Your task to perform on an android device: delete browsing data in the chrome app Image 0: 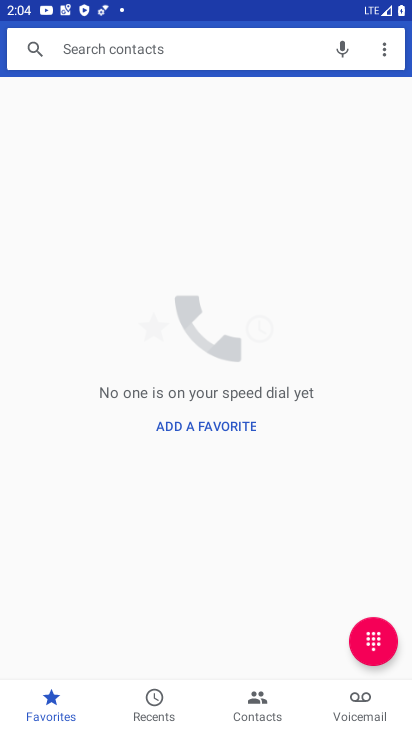
Step 0: press home button
Your task to perform on an android device: delete browsing data in the chrome app Image 1: 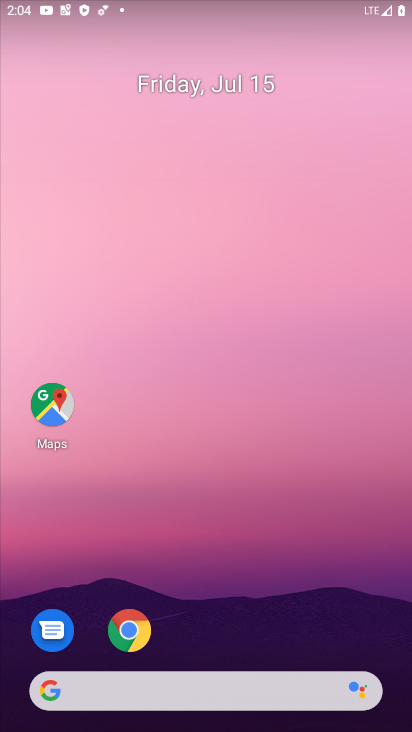
Step 1: drag from (258, 591) to (184, 114)
Your task to perform on an android device: delete browsing data in the chrome app Image 2: 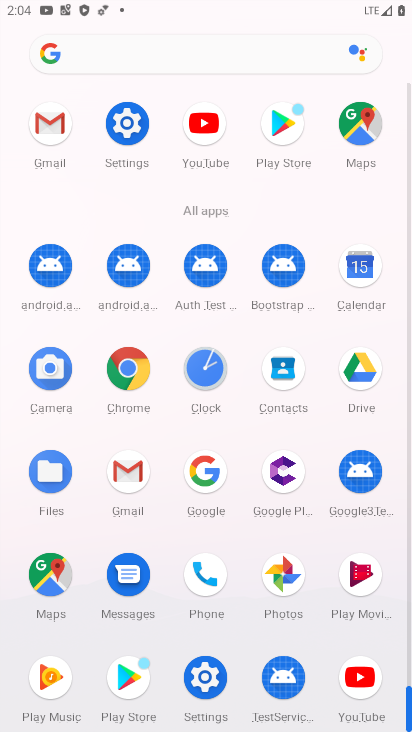
Step 2: click (130, 371)
Your task to perform on an android device: delete browsing data in the chrome app Image 3: 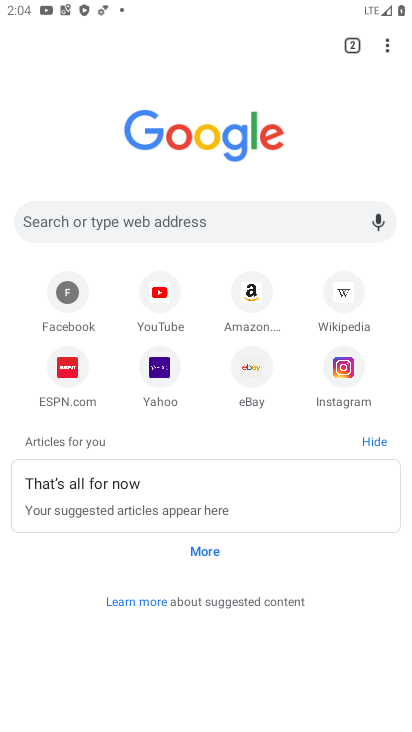
Step 3: drag from (386, 44) to (266, 390)
Your task to perform on an android device: delete browsing data in the chrome app Image 4: 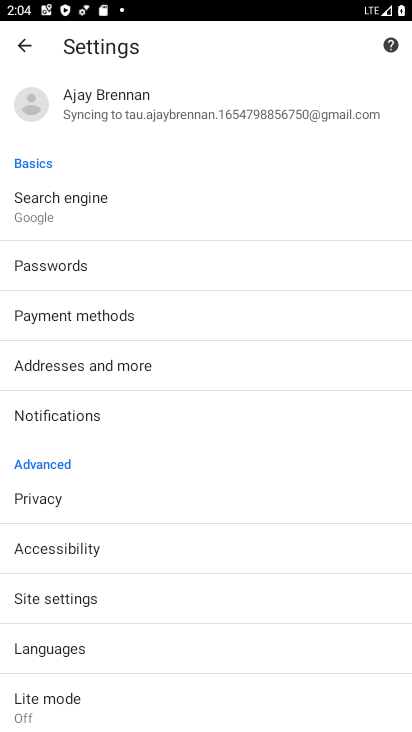
Step 4: click (39, 495)
Your task to perform on an android device: delete browsing data in the chrome app Image 5: 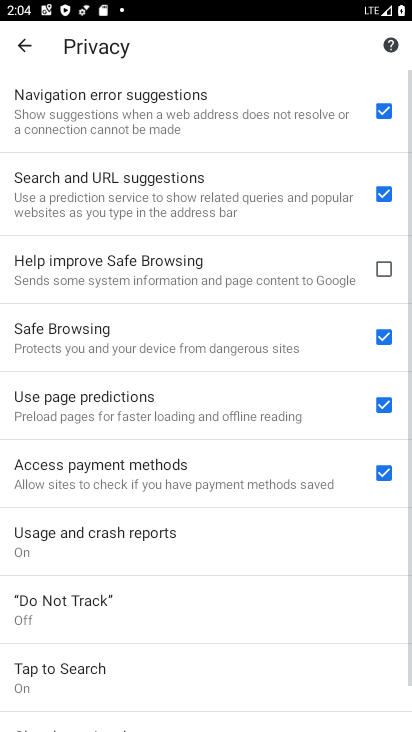
Step 5: drag from (252, 702) to (236, 172)
Your task to perform on an android device: delete browsing data in the chrome app Image 6: 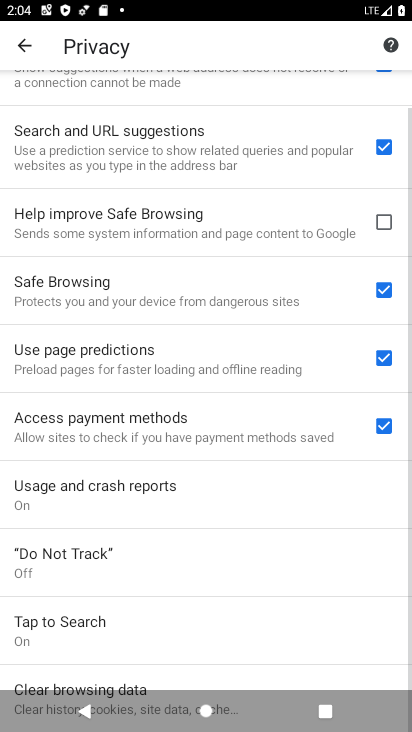
Step 6: click (86, 683)
Your task to perform on an android device: delete browsing data in the chrome app Image 7: 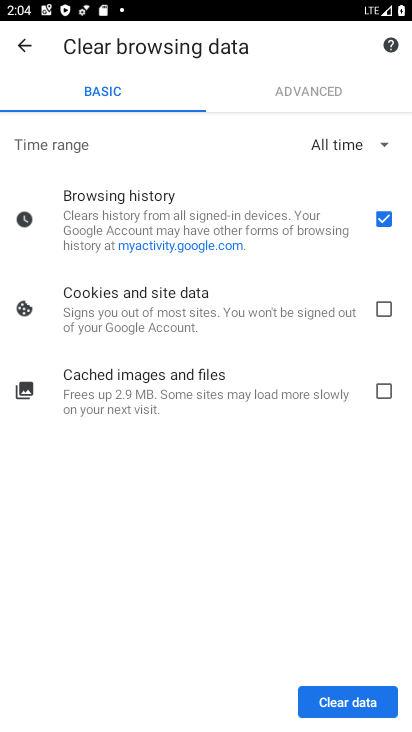
Step 7: click (354, 703)
Your task to perform on an android device: delete browsing data in the chrome app Image 8: 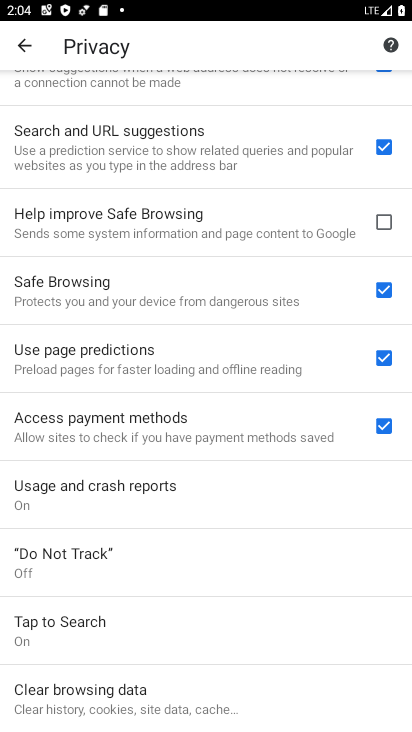
Step 8: task complete